Your task to perform on an android device: change the upload size in google photos Image 0: 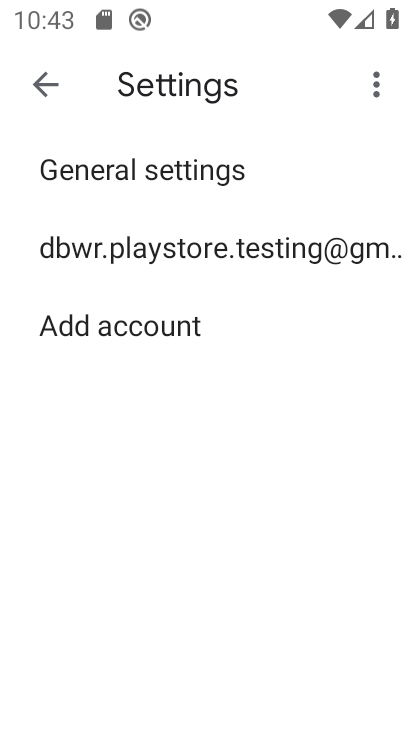
Step 0: press home button
Your task to perform on an android device: change the upload size in google photos Image 1: 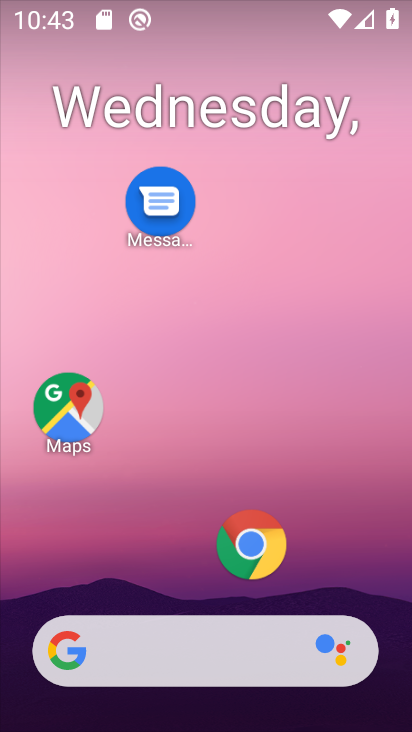
Step 1: drag from (188, 565) to (241, 175)
Your task to perform on an android device: change the upload size in google photos Image 2: 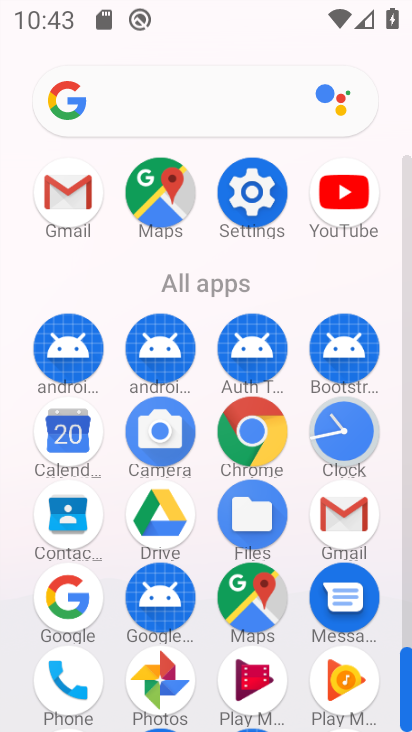
Step 2: click (174, 665)
Your task to perform on an android device: change the upload size in google photos Image 3: 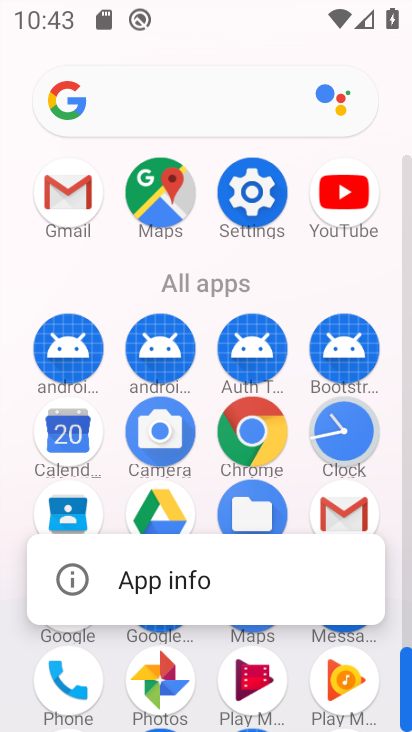
Step 3: click (147, 689)
Your task to perform on an android device: change the upload size in google photos Image 4: 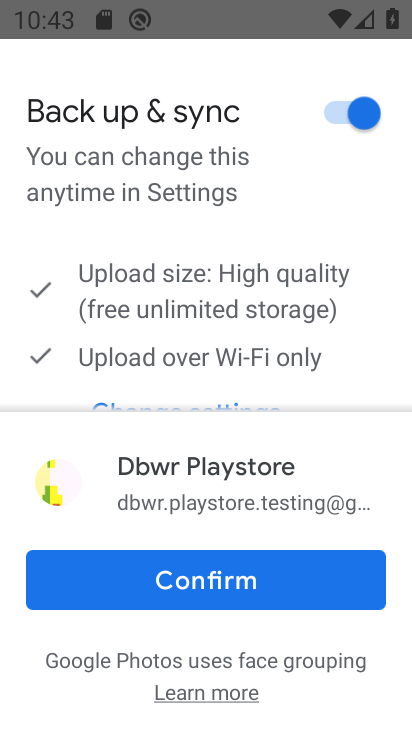
Step 4: click (274, 588)
Your task to perform on an android device: change the upload size in google photos Image 5: 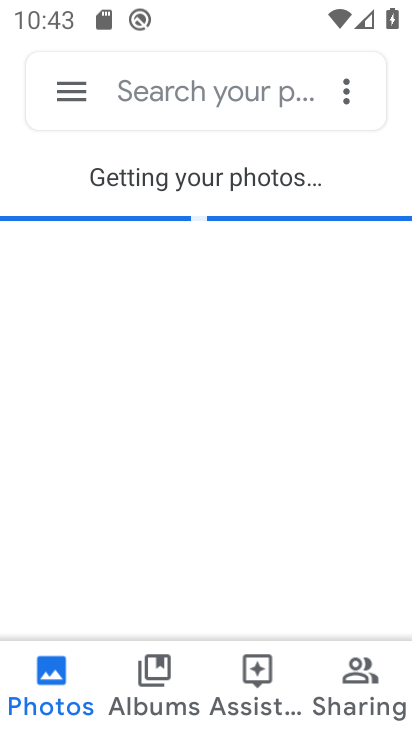
Step 5: click (70, 96)
Your task to perform on an android device: change the upload size in google photos Image 6: 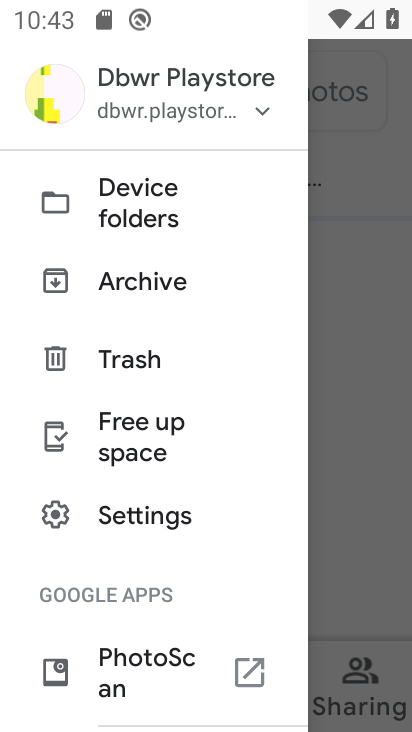
Step 6: drag from (158, 582) to (170, 259)
Your task to perform on an android device: change the upload size in google photos Image 7: 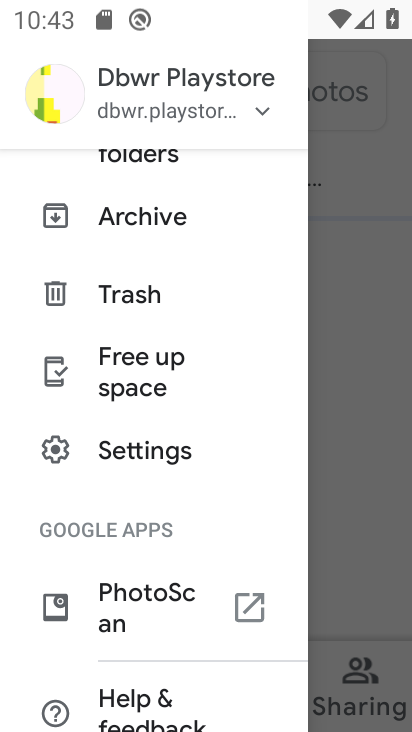
Step 7: drag from (164, 517) to (202, 230)
Your task to perform on an android device: change the upload size in google photos Image 8: 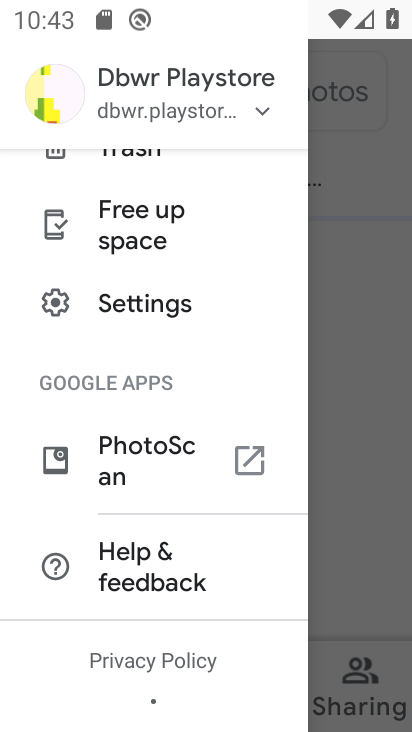
Step 8: click (147, 301)
Your task to perform on an android device: change the upload size in google photos Image 9: 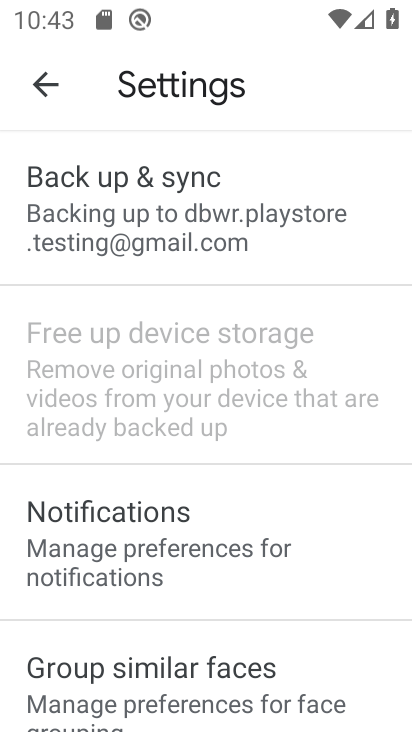
Step 9: click (153, 230)
Your task to perform on an android device: change the upload size in google photos Image 10: 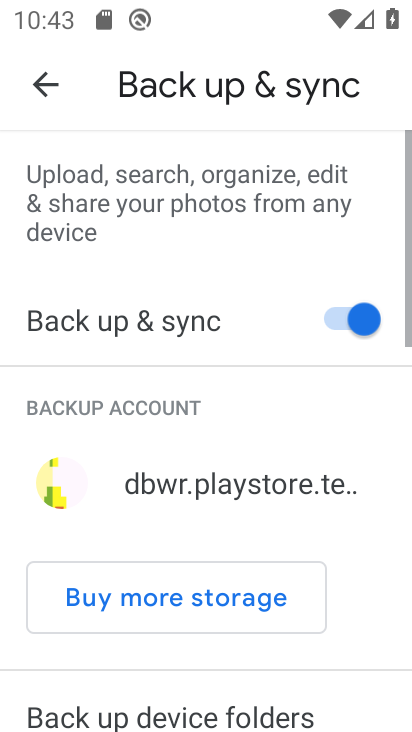
Step 10: drag from (290, 504) to (301, 227)
Your task to perform on an android device: change the upload size in google photos Image 11: 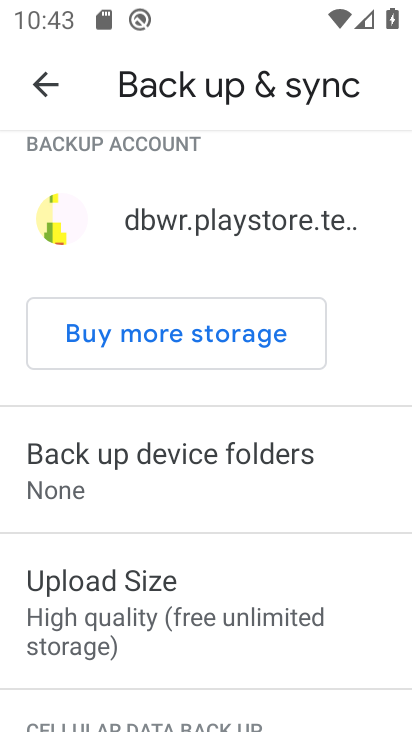
Step 11: click (183, 618)
Your task to perform on an android device: change the upload size in google photos Image 12: 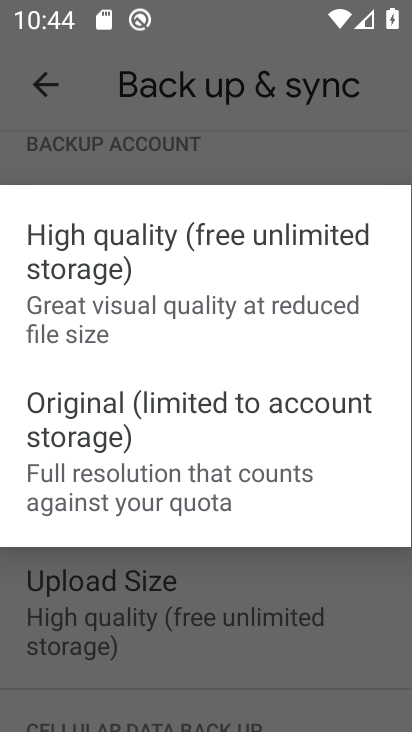
Step 12: click (149, 416)
Your task to perform on an android device: change the upload size in google photos Image 13: 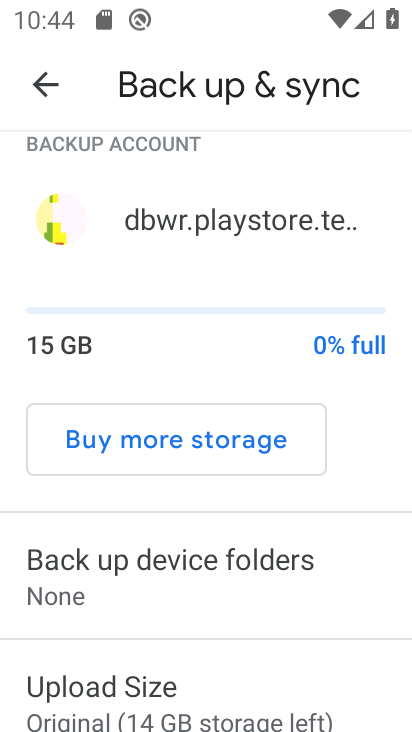
Step 13: task complete